Your task to perform on an android device: Go to wifi settings Image 0: 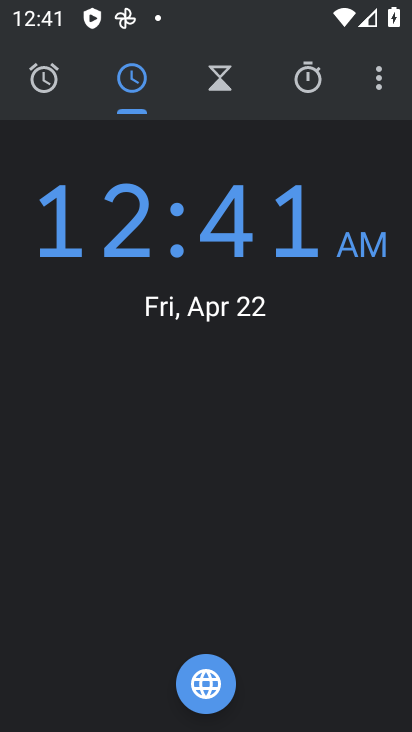
Step 0: press home button
Your task to perform on an android device: Go to wifi settings Image 1: 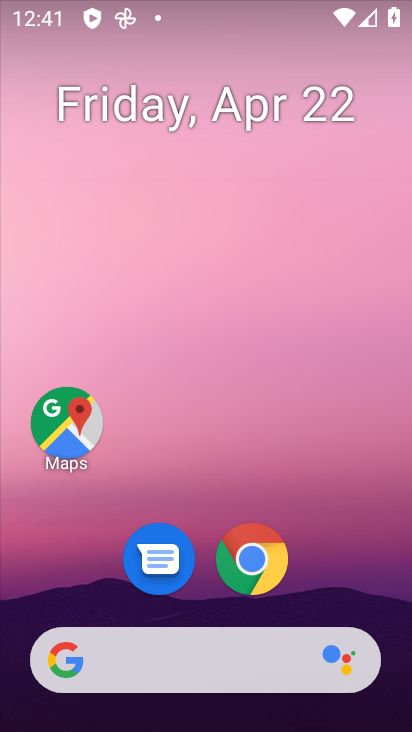
Step 1: drag from (347, 569) to (357, 153)
Your task to perform on an android device: Go to wifi settings Image 2: 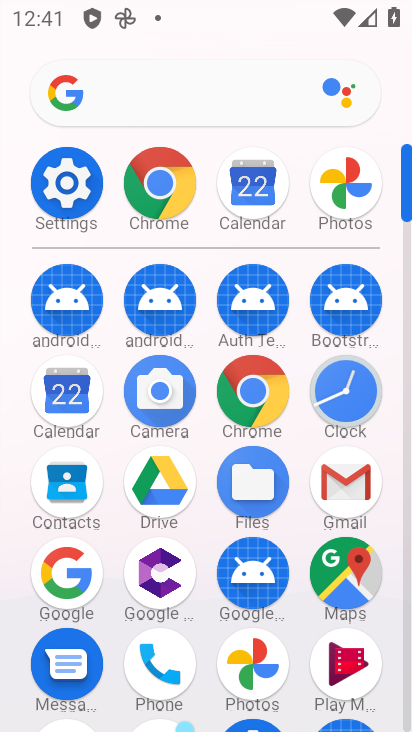
Step 2: click (55, 174)
Your task to perform on an android device: Go to wifi settings Image 3: 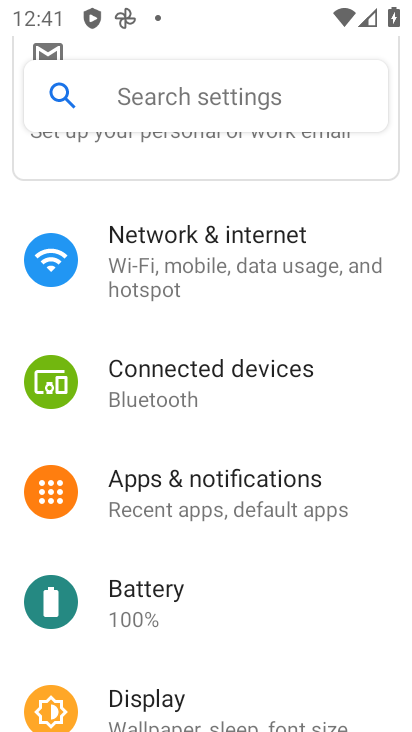
Step 3: click (281, 269)
Your task to perform on an android device: Go to wifi settings Image 4: 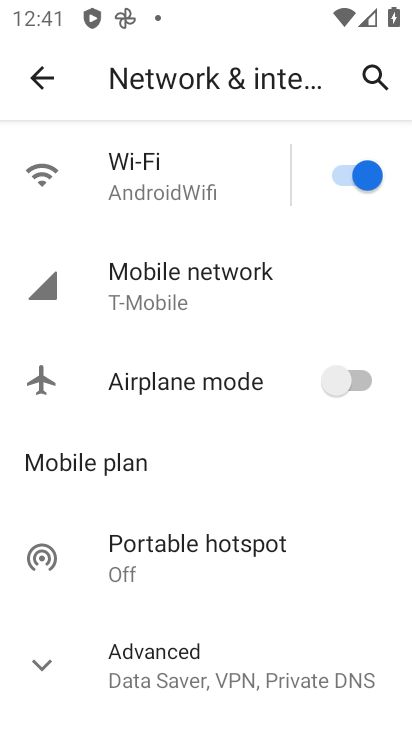
Step 4: click (185, 182)
Your task to perform on an android device: Go to wifi settings Image 5: 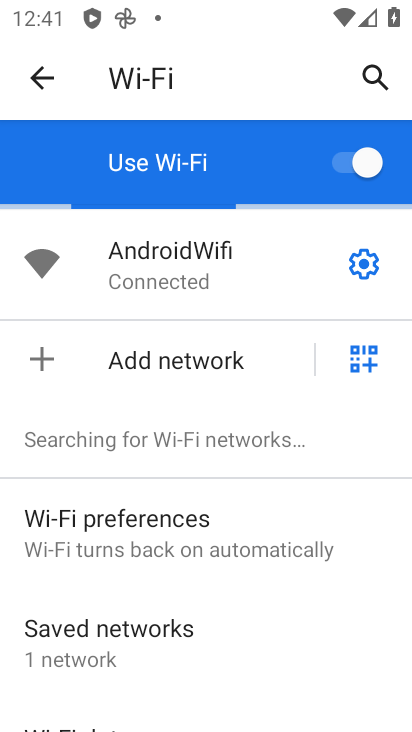
Step 5: task complete